Your task to perform on an android device: View the shopping cart on bestbuy.com. Search for bose soundsport free on bestbuy.com, select the first entry, and add it to the cart. Image 0: 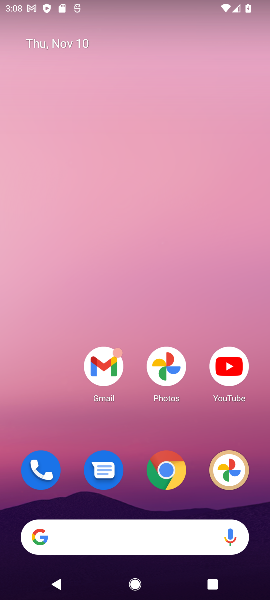
Step 0: click (165, 470)
Your task to perform on an android device: View the shopping cart on bestbuy.com. Search for bose soundsport free on bestbuy.com, select the first entry, and add it to the cart. Image 1: 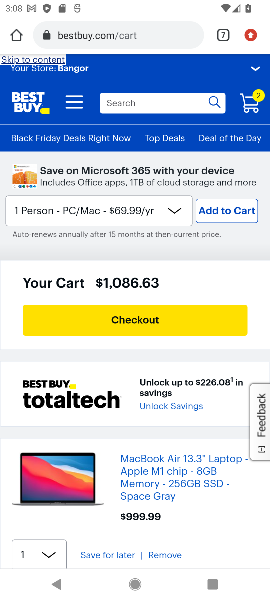
Step 1: click (252, 106)
Your task to perform on an android device: View the shopping cart on bestbuy.com. Search for bose soundsport free on bestbuy.com, select the first entry, and add it to the cart. Image 2: 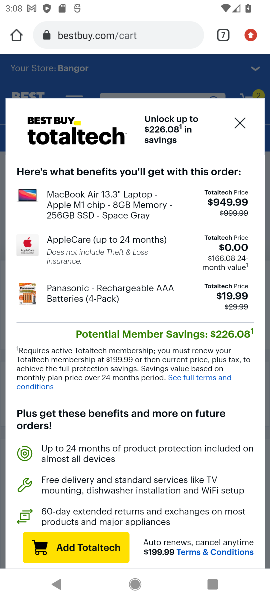
Step 2: click (239, 121)
Your task to perform on an android device: View the shopping cart on bestbuy.com. Search for bose soundsport free on bestbuy.com, select the first entry, and add it to the cart. Image 3: 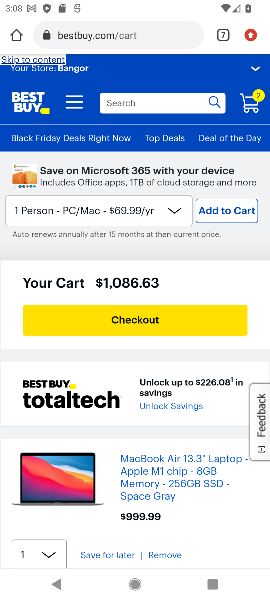
Step 3: click (163, 552)
Your task to perform on an android device: View the shopping cart on bestbuy.com. Search for bose soundsport free on bestbuy.com, select the first entry, and add it to the cart. Image 4: 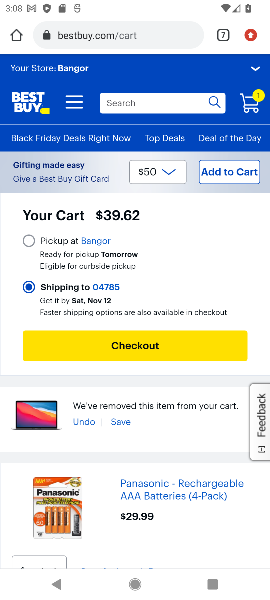
Step 4: drag from (164, 516) to (211, 289)
Your task to perform on an android device: View the shopping cart on bestbuy.com. Search for bose soundsport free on bestbuy.com, select the first entry, and add it to the cart. Image 5: 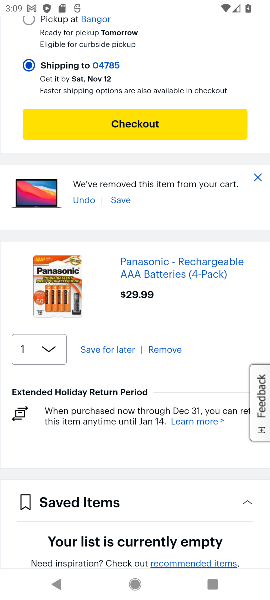
Step 5: click (156, 351)
Your task to perform on an android device: View the shopping cart on bestbuy.com. Search for bose soundsport free on bestbuy.com, select the first entry, and add it to the cart. Image 6: 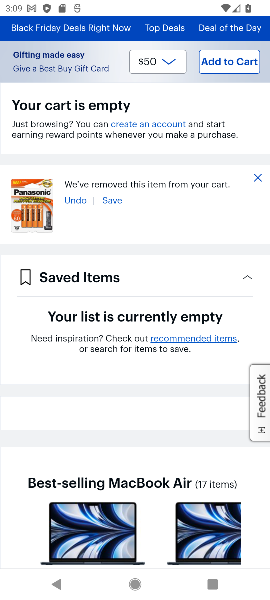
Step 6: drag from (173, 183) to (233, 539)
Your task to perform on an android device: View the shopping cart on bestbuy.com. Search for bose soundsport free on bestbuy.com, select the first entry, and add it to the cart. Image 7: 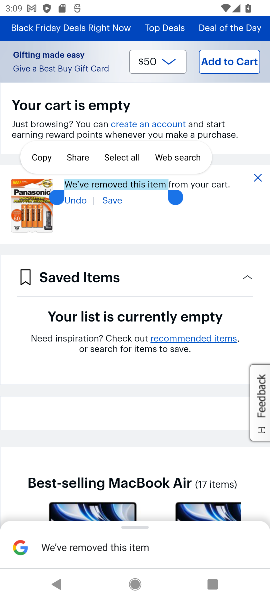
Step 7: drag from (189, 103) to (209, 452)
Your task to perform on an android device: View the shopping cart on bestbuy.com. Search for bose soundsport free on bestbuy.com, select the first entry, and add it to the cart. Image 8: 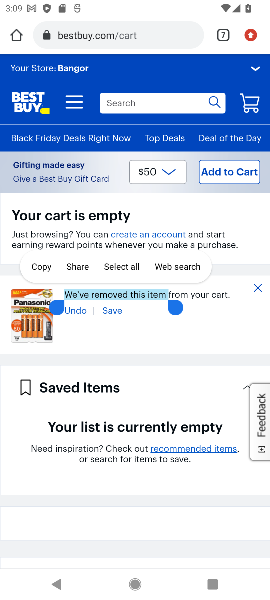
Step 8: click (149, 100)
Your task to perform on an android device: View the shopping cart on bestbuy.com. Search for bose soundsport free on bestbuy.com, select the first entry, and add it to the cart. Image 9: 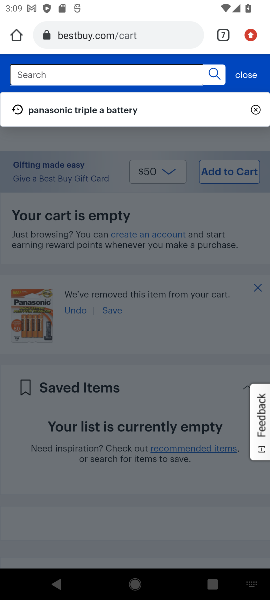
Step 9: type "bose soundsport free"
Your task to perform on an android device: View the shopping cart on bestbuy.com. Search for bose soundsport free on bestbuy.com, select the first entry, and add it to the cart. Image 10: 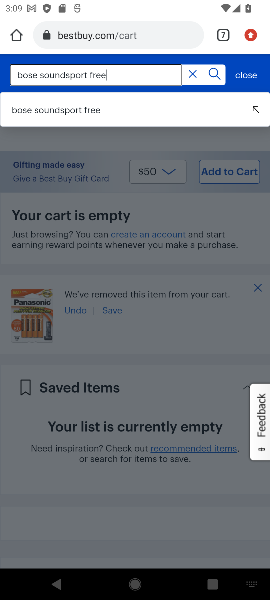
Step 10: click (222, 74)
Your task to perform on an android device: View the shopping cart on bestbuy.com. Search for bose soundsport free on bestbuy.com, select the first entry, and add it to the cart. Image 11: 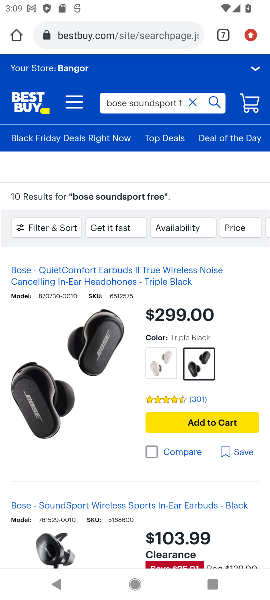
Step 11: click (215, 100)
Your task to perform on an android device: View the shopping cart on bestbuy.com. Search for bose soundsport free on bestbuy.com, select the first entry, and add it to the cart. Image 12: 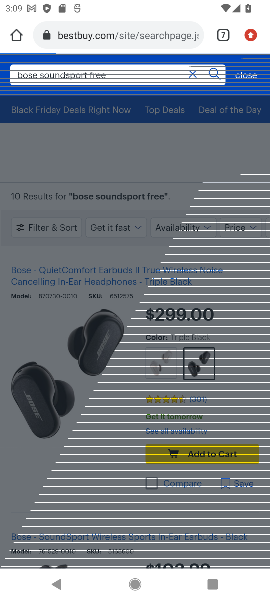
Step 12: click (248, 314)
Your task to perform on an android device: View the shopping cart on bestbuy.com. Search for bose soundsport free on bestbuy.com, select the first entry, and add it to the cart. Image 13: 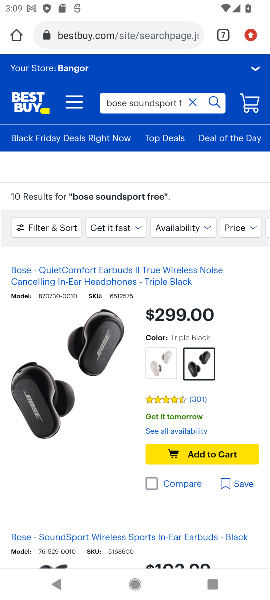
Step 13: click (206, 447)
Your task to perform on an android device: View the shopping cart on bestbuy.com. Search for bose soundsport free on bestbuy.com, select the first entry, and add it to the cart. Image 14: 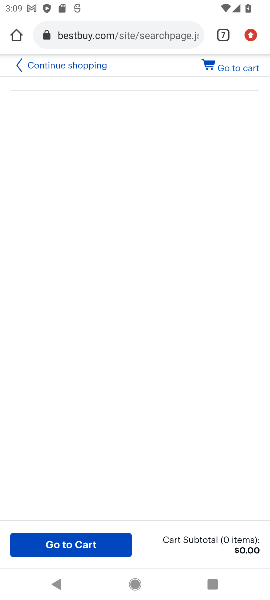
Step 14: task complete